Your task to perform on an android device: Open Google Chrome Image 0: 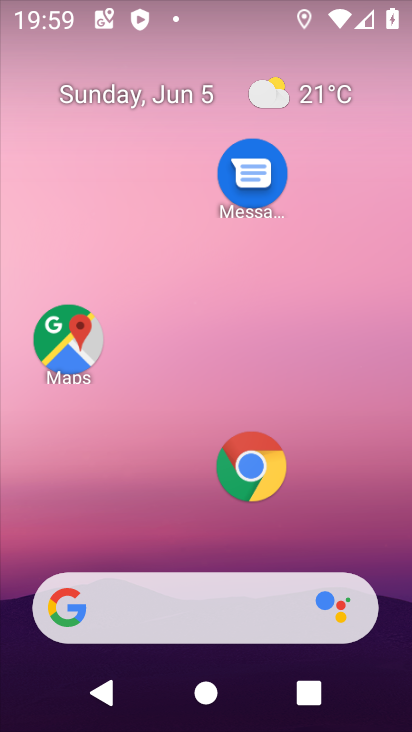
Step 0: drag from (201, 506) to (214, 93)
Your task to perform on an android device: Open Google Chrome Image 1: 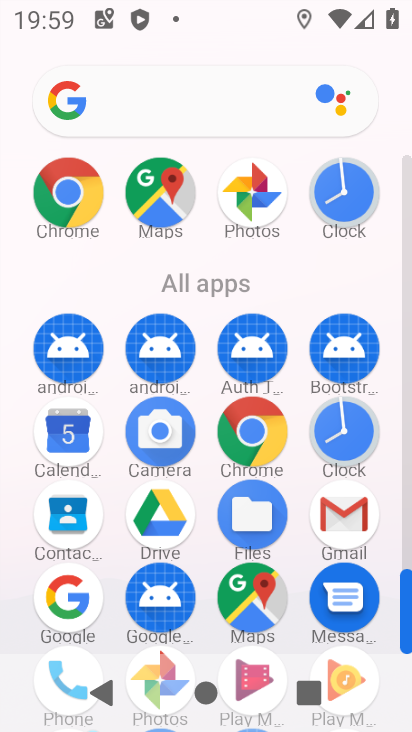
Step 1: click (262, 433)
Your task to perform on an android device: Open Google Chrome Image 2: 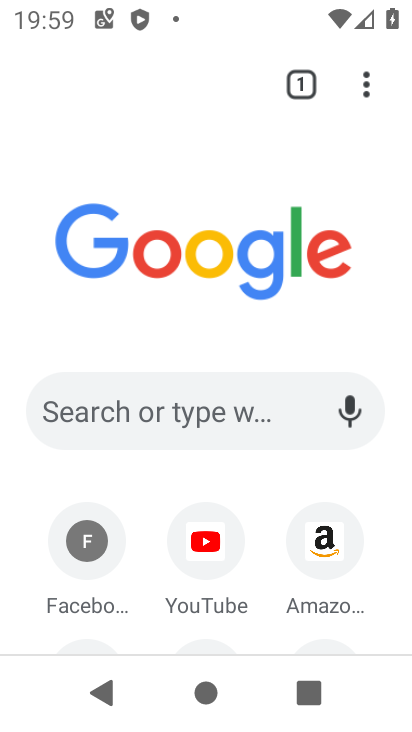
Step 2: task complete